Your task to perform on an android device: Open Google Maps Image 0: 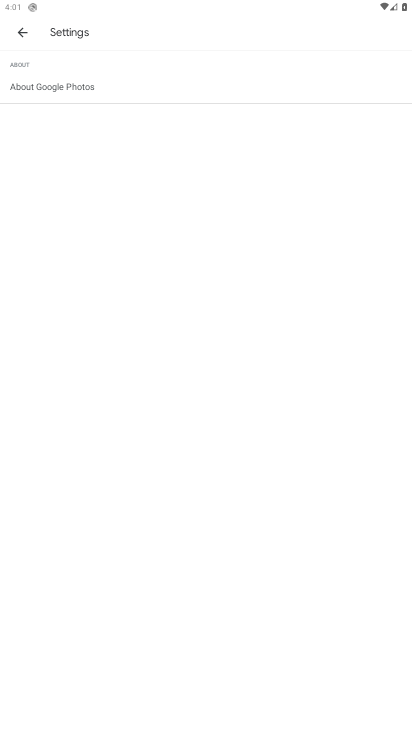
Step 0: press home button
Your task to perform on an android device: Open Google Maps Image 1: 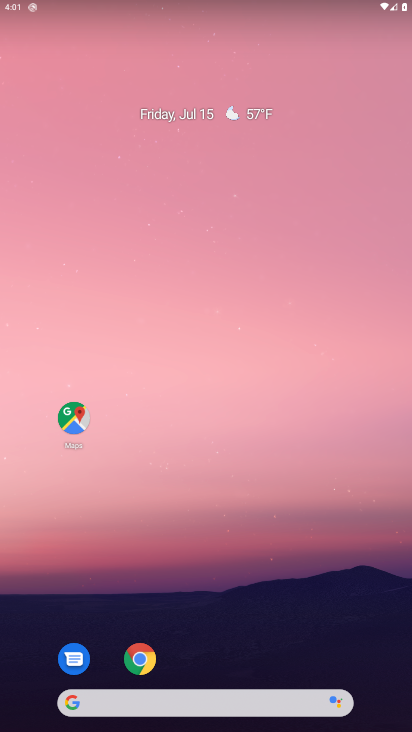
Step 1: click (68, 404)
Your task to perform on an android device: Open Google Maps Image 2: 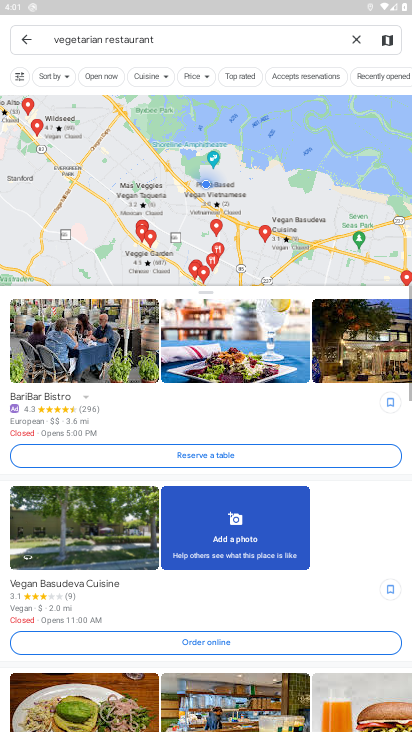
Step 2: click (26, 33)
Your task to perform on an android device: Open Google Maps Image 3: 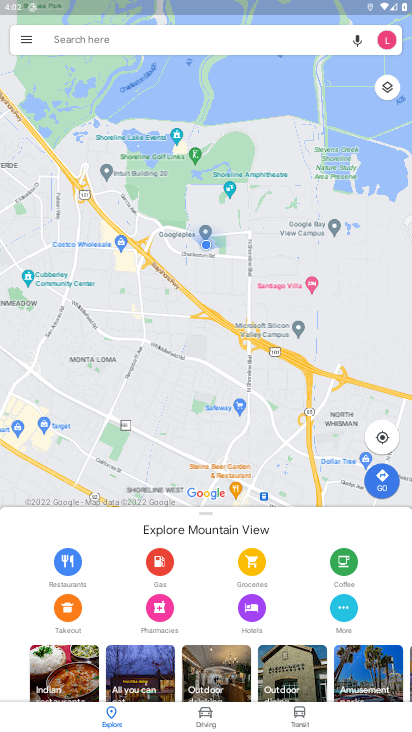
Step 3: task complete